Your task to perform on an android device: Open battery settings Image 0: 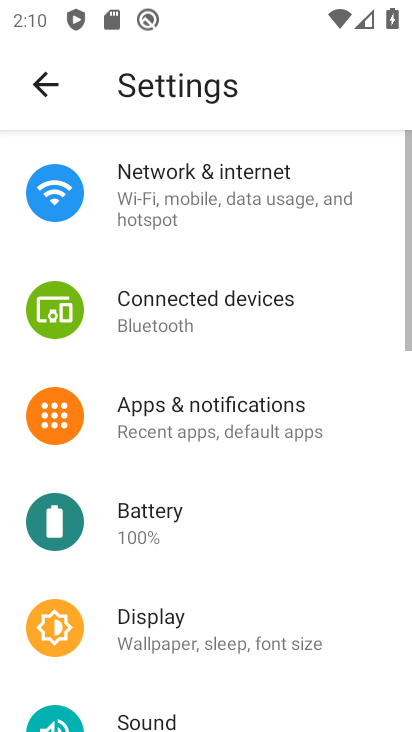
Step 0: click (152, 514)
Your task to perform on an android device: Open battery settings Image 1: 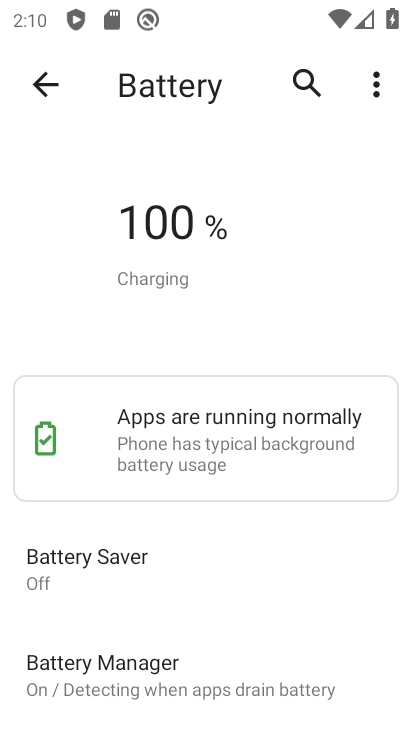
Step 1: task complete